Your task to perform on an android device: Open settings Image 0: 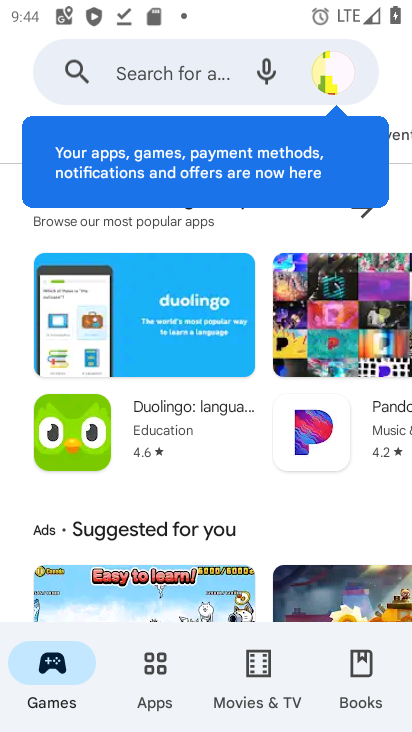
Step 0: press home button
Your task to perform on an android device: Open settings Image 1: 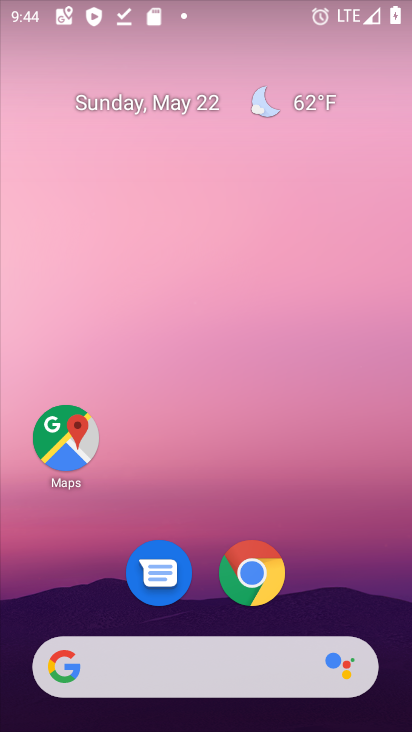
Step 1: drag from (199, 664) to (128, 82)
Your task to perform on an android device: Open settings Image 2: 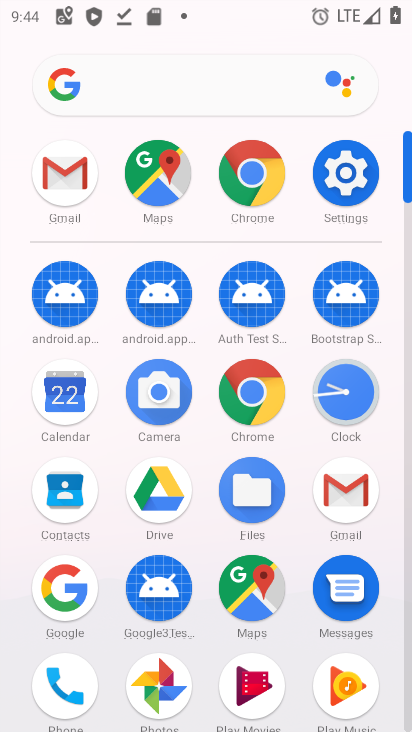
Step 2: click (335, 189)
Your task to perform on an android device: Open settings Image 3: 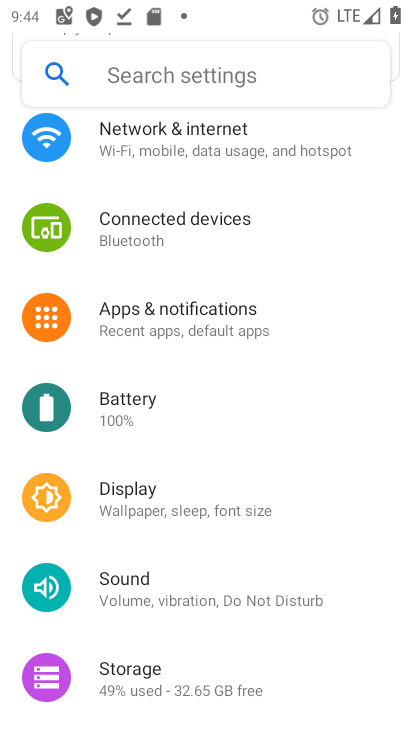
Step 3: task complete